Your task to perform on an android device: Go to Google Image 0: 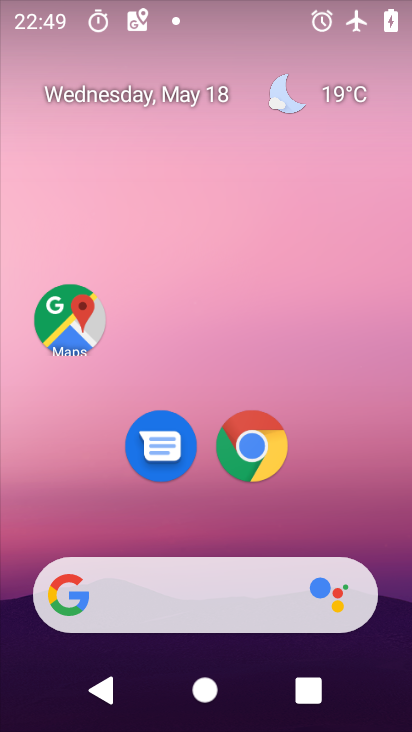
Step 0: press home button
Your task to perform on an android device: Go to Google Image 1: 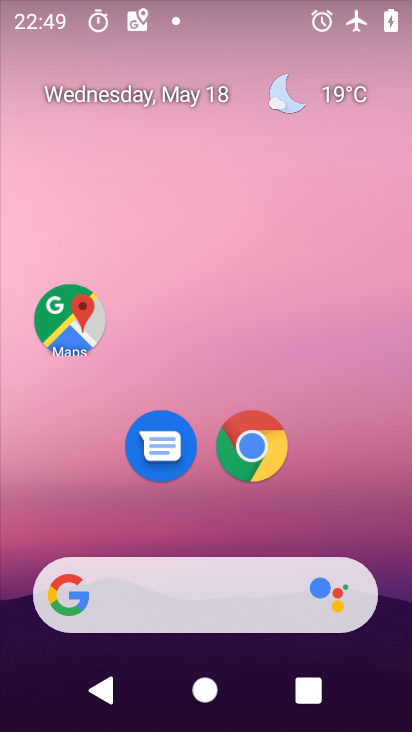
Step 1: drag from (153, 598) to (294, 189)
Your task to perform on an android device: Go to Google Image 2: 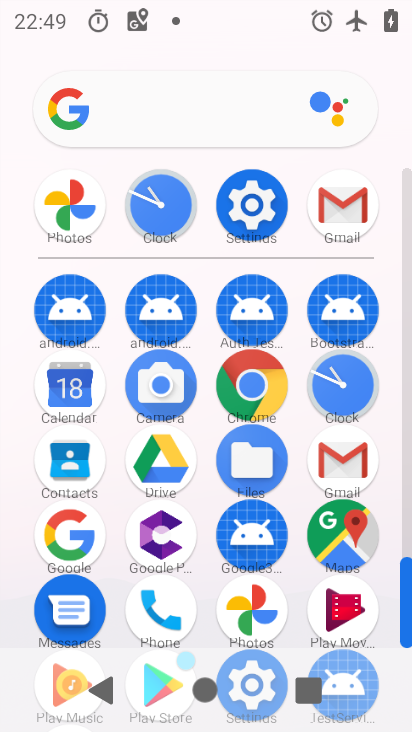
Step 2: click (83, 541)
Your task to perform on an android device: Go to Google Image 3: 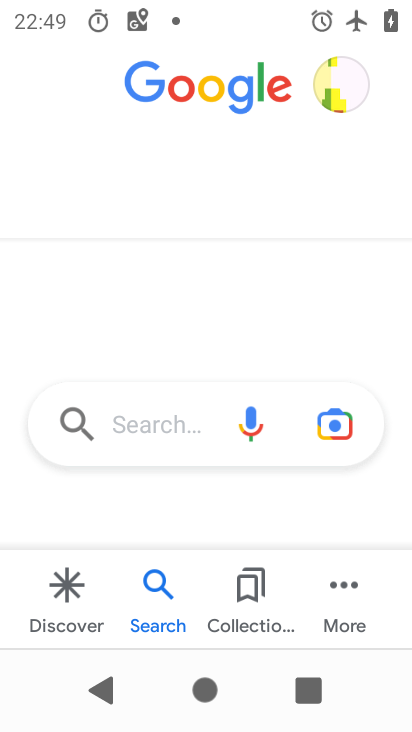
Step 3: task complete